Your task to perform on an android device: empty trash in google photos Image 0: 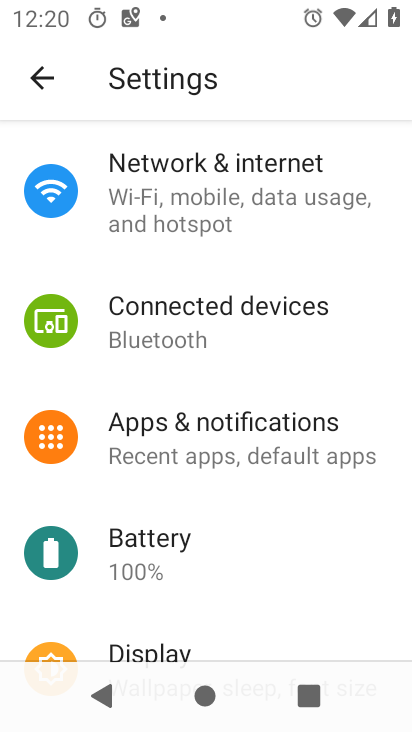
Step 0: press back button
Your task to perform on an android device: empty trash in google photos Image 1: 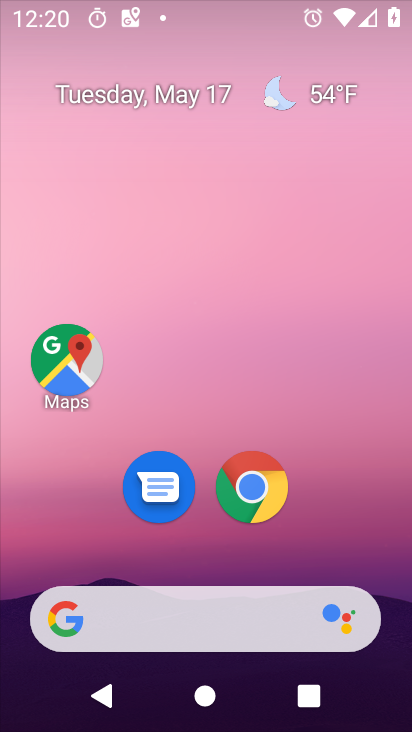
Step 1: drag from (159, 543) to (265, 51)
Your task to perform on an android device: empty trash in google photos Image 2: 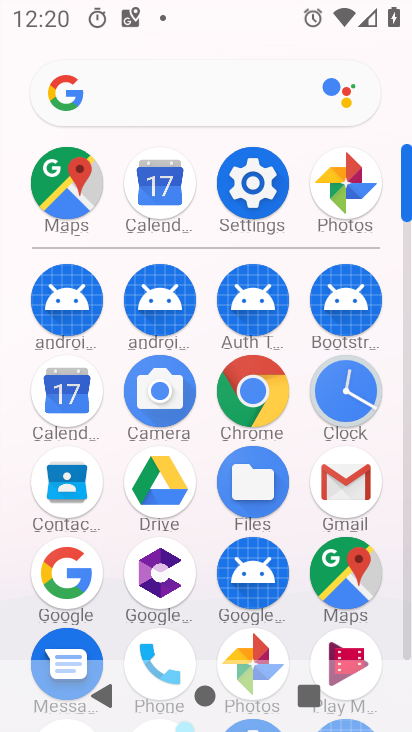
Step 2: click (259, 652)
Your task to perform on an android device: empty trash in google photos Image 3: 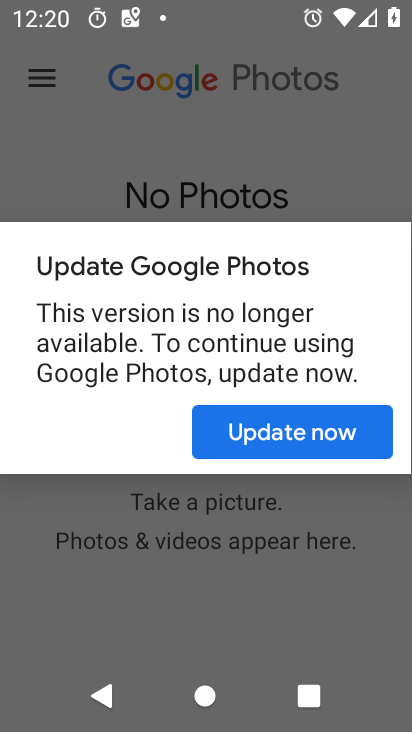
Step 3: click (244, 436)
Your task to perform on an android device: empty trash in google photos Image 4: 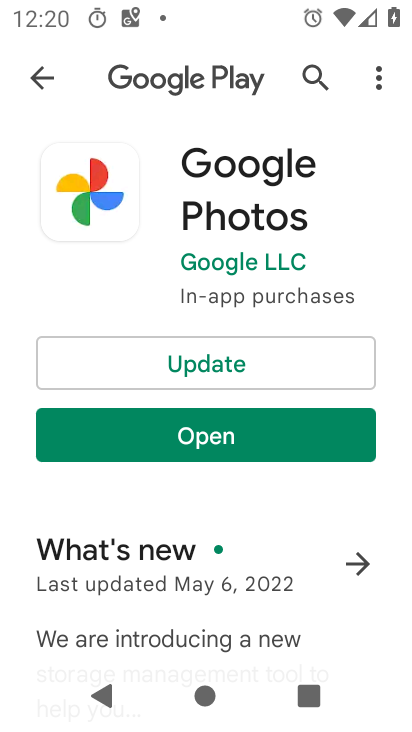
Step 4: click (218, 439)
Your task to perform on an android device: empty trash in google photos Image 5: 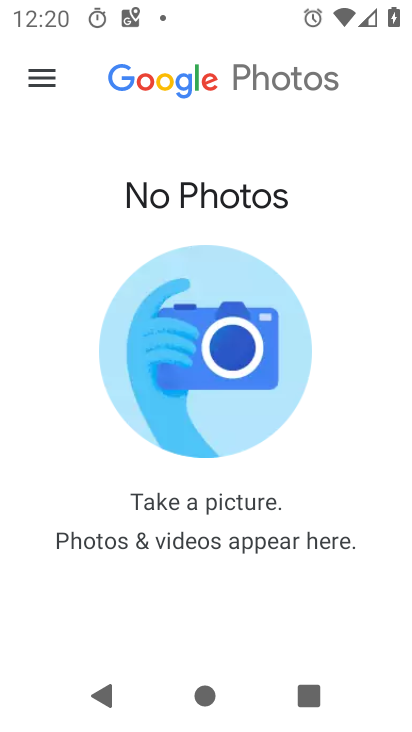
Step 5: click (39, 79)
Your task to perform on an android device: empty trash in google photos Image 6: 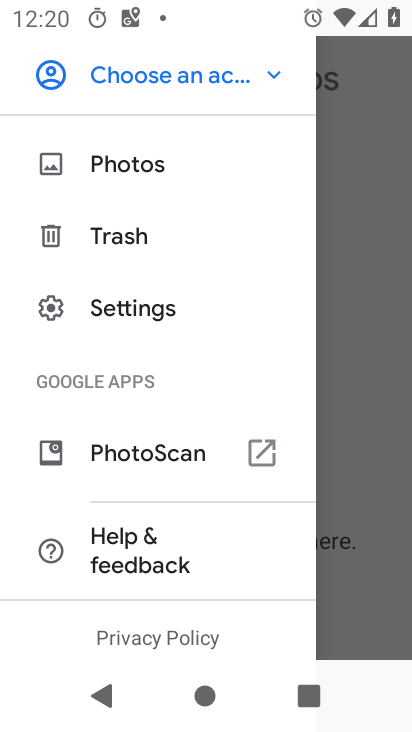
Step 6: click (135, 235)
Your task to perform on an android device: empty trash in google photos Image 7: 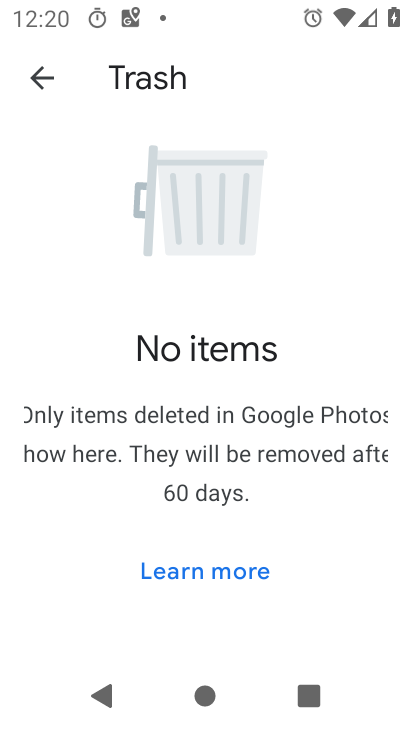
Step 7: task complete